Your task to perform on an android device: read, delete, or share a saved page in the chrome app Image 0: 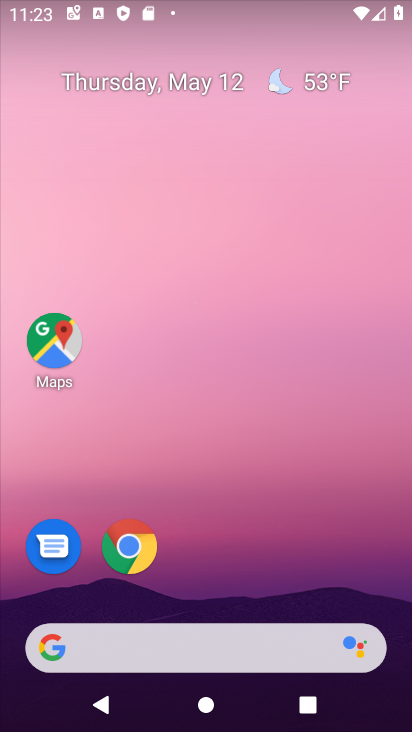
Step 0: drag from (253, 675) to (246, 288)
Your task to perform on an android device: read, delete, or share a saved page in the chrome app Image 1: 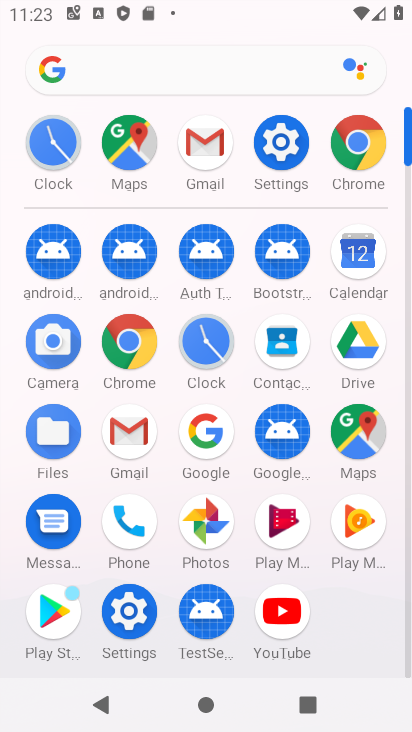
Step 1: click (147, 349)
Your task to perform on an android device: read, delete, or share a saved page in the chrome app Image 2: 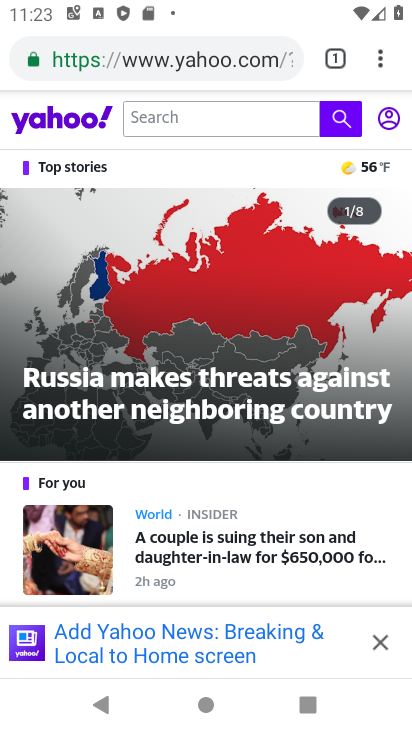
Step 2: click (368, 77)
Your task to perform on an android device: read, delete, or share a saved page in the chrome app Image 3: 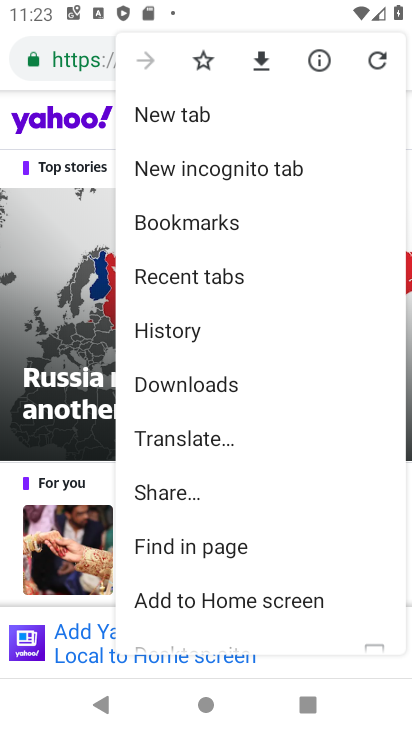
Step 3: click (187, 486)
Your task to perform on an android device: read, delete, or share a saved page in the chrome app Image 4: 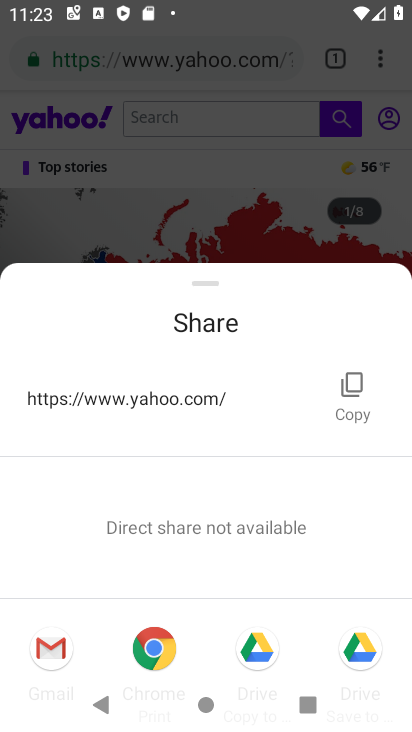
Step 4: task complete